Your task to perform on an android device: uninstall "Facebook Messenger" Image 0: 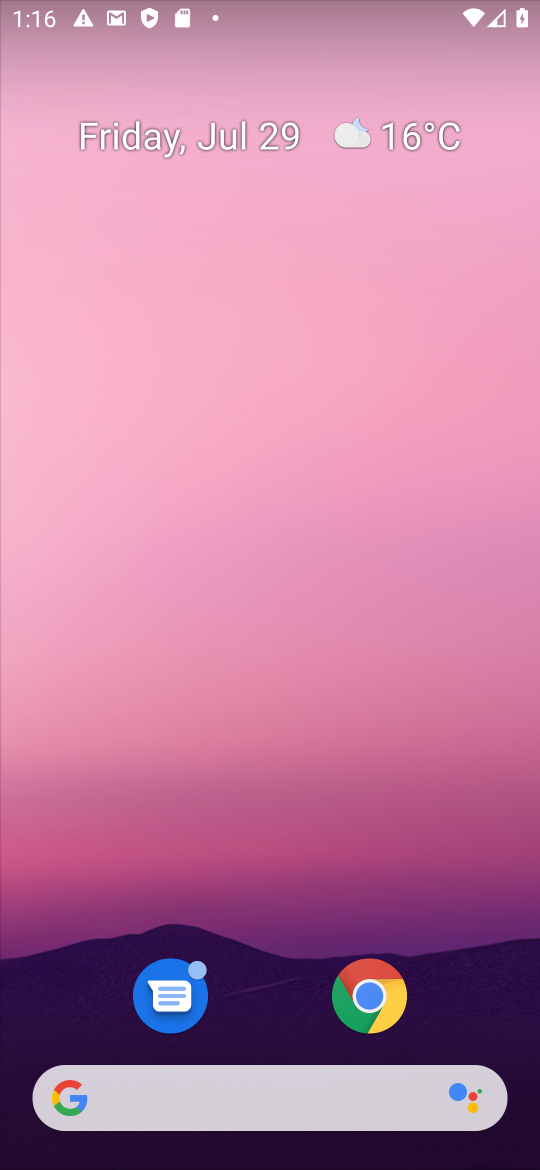
Step 0: drag from (237, 1048) to (281, 360)
Your task to perform on an android device: uninstall "Facebook Messenger" Image 1: 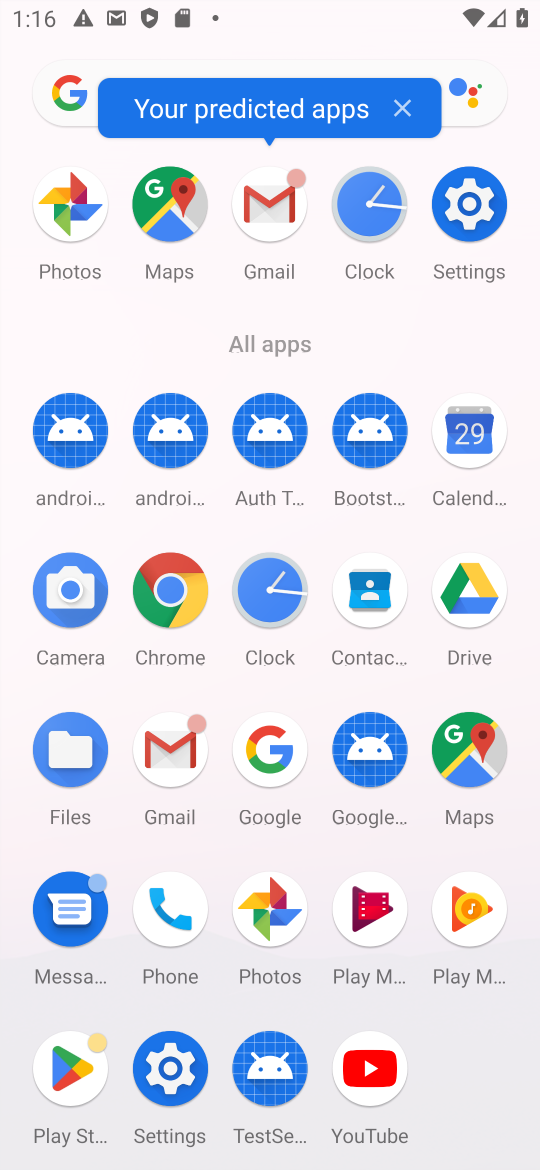
Step 1: click (61, 1075)
Your task to perform on an android device: uninstall "Facebook Messenger" Image 2: 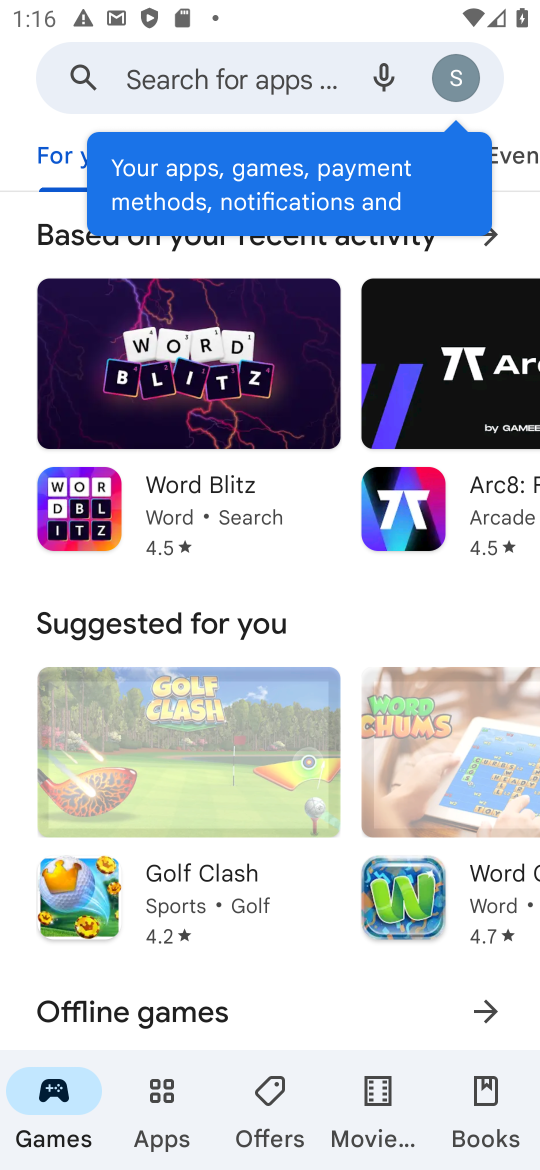
Step 2: click (232, 75)
Your task to perform on an android device: uninstall "Facebook Messenger" Image 3: 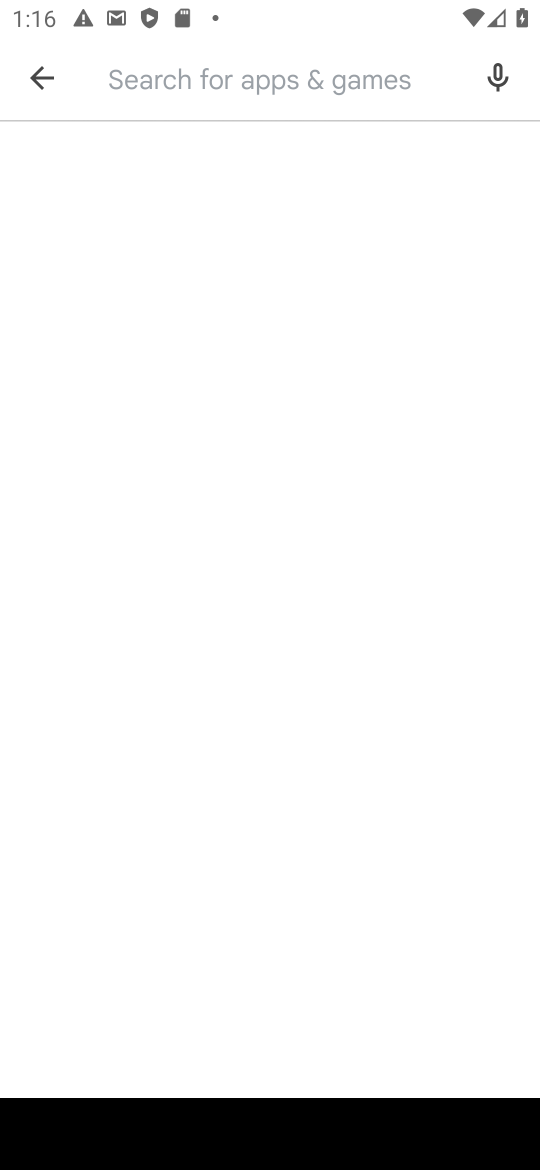
Step 3: type "Facebook Messenger"
Your task to perform on an android device: uninstall "Facebook Messenger" Image 4: 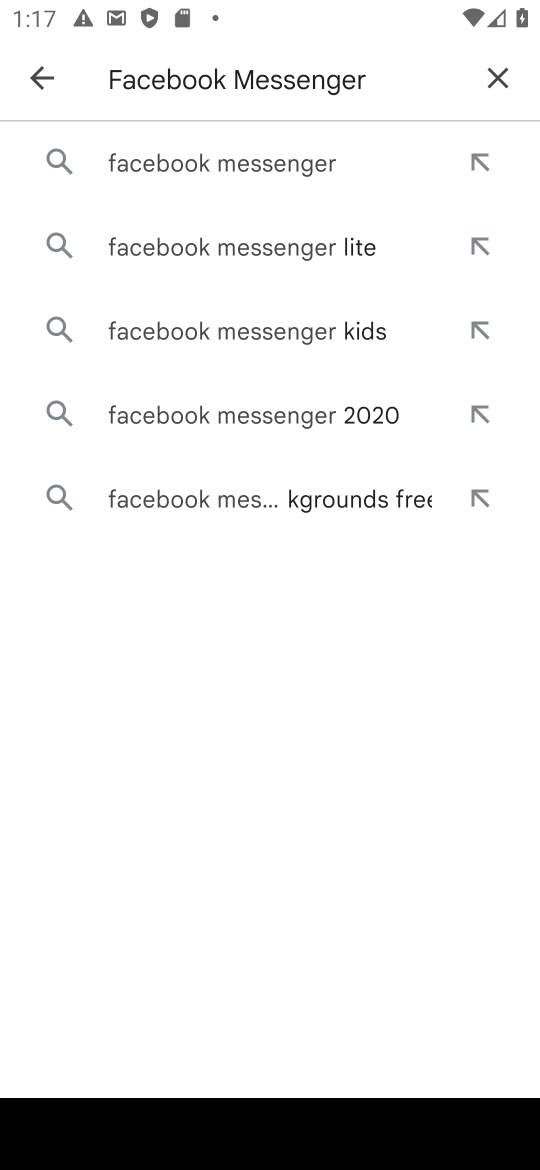
Step 4: click (282, 160)
Your task to perform on an android device: uninstall "Facebook Messenger" Image 5: 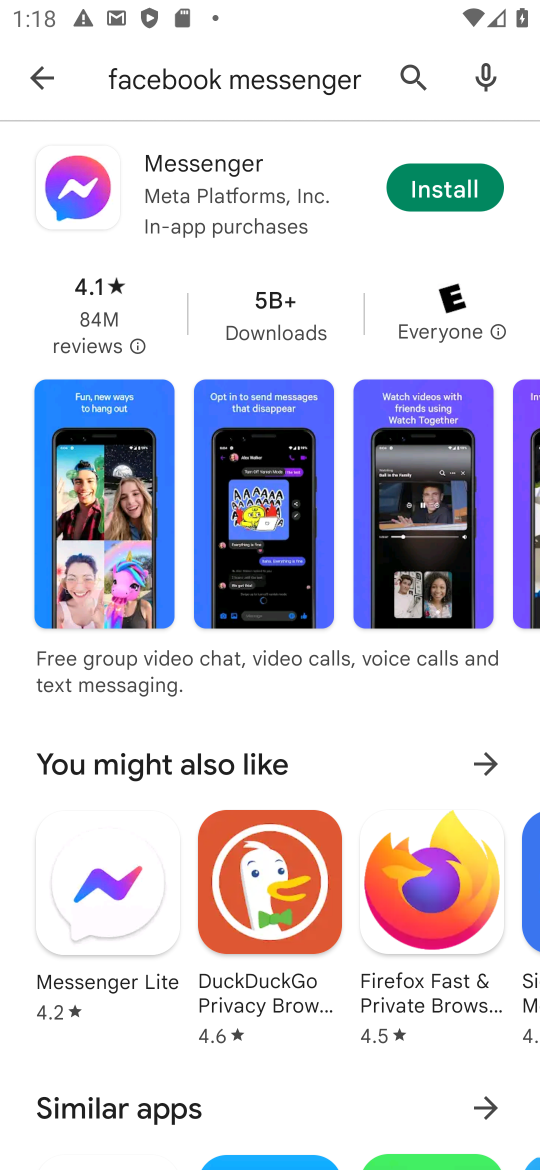
Step 5: task complete